Your task to perform on an android device: turn notification dots on Image 0: 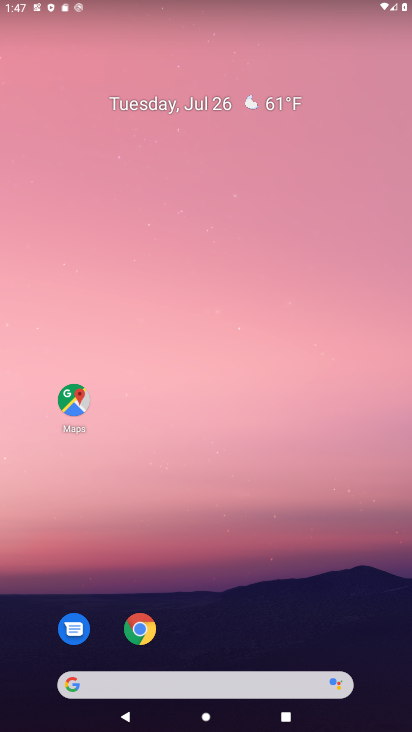
Step 0: drag from (212, 518) to (220, 78)
Your task to perform on an android device: turn notification dots on Image 1: 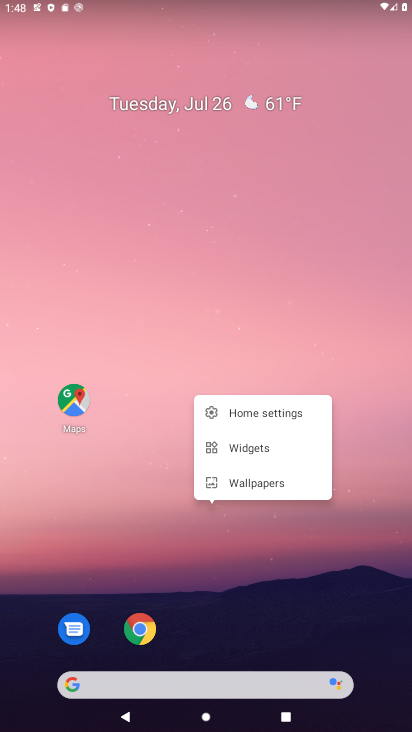
Step 1: drag from (196, 596) to (179, 424)
Your task to perform on an android device: turn notification dots on Image 2: 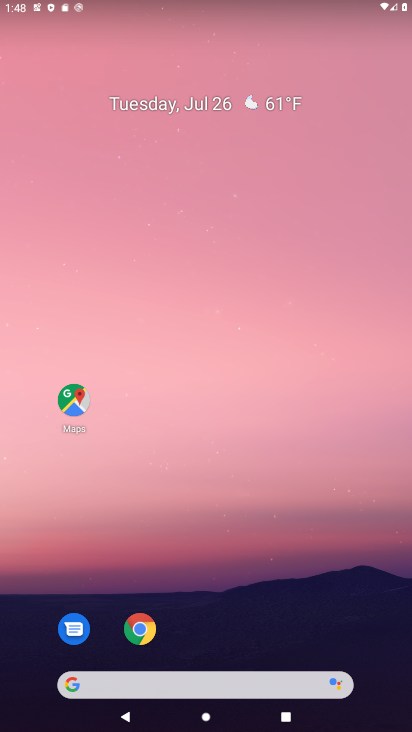
Step 2: drag from (208, 650) to (239, 223)
Your task to perform on an android device: turn notification dots on Image 3: 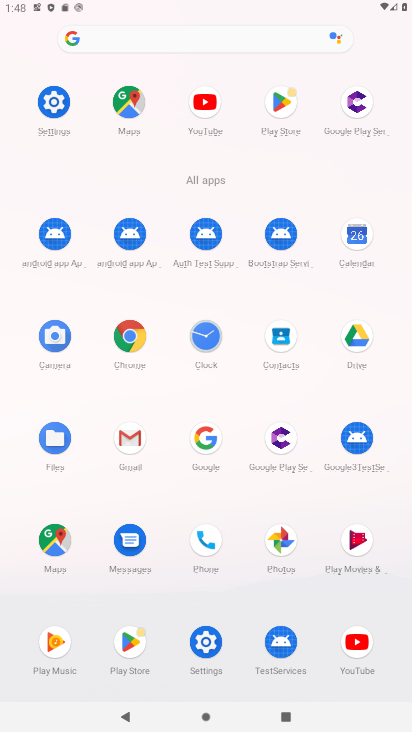
Step 3: click (57, 100)
Your task to perform on an android device: turn notification dots on Image 4: 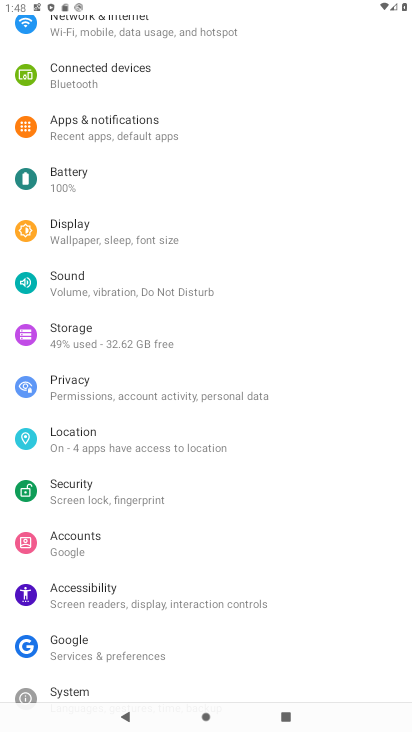
Step 4: click (133, 129)
Your task to perform on an android device: turn notification dots on Image 5: 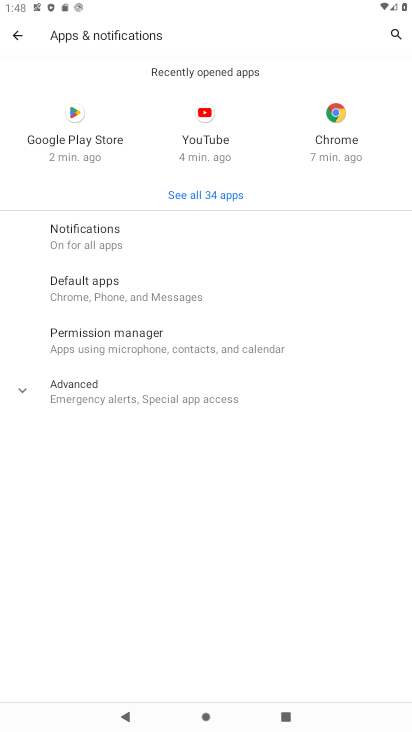
Step 5: click (122, 240)
Your task to perform on an android device: turn notification dots on Image 6: 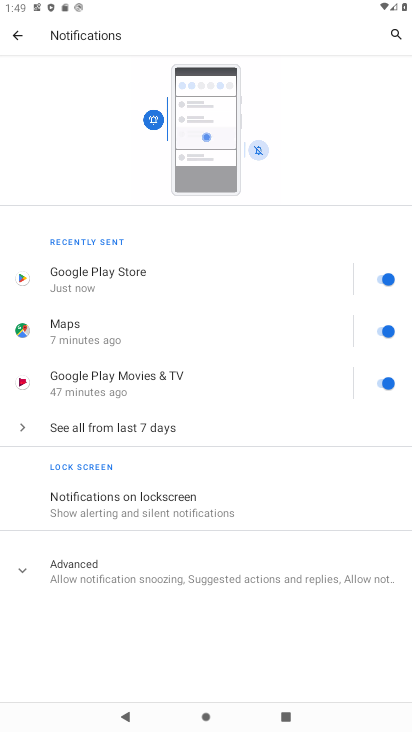
Step 6: click (215, 557)
Your task to perform on an android device: turn notification dots on Image 7: 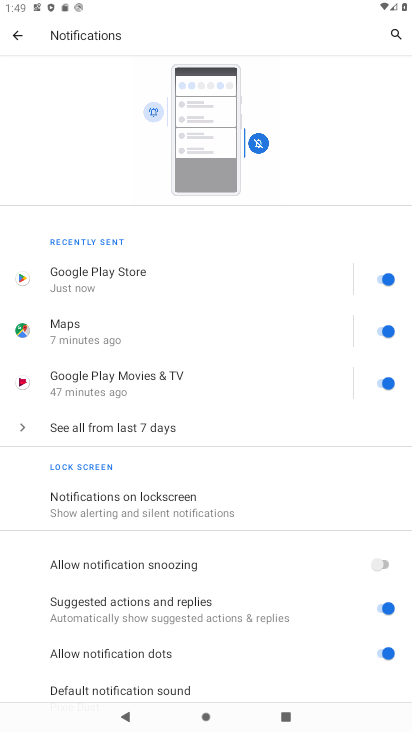
Step 7: task complete